Your task to perform on an android device: turn off improve location accuracy Image 0: 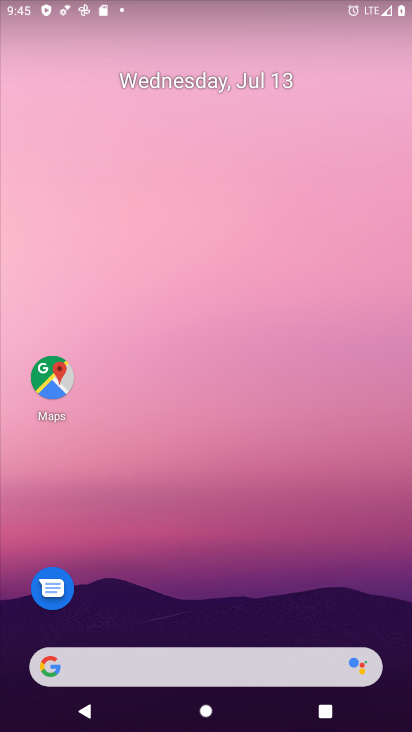
Step 0: drag from (263, 717) to (238, 92)
Your task to perform on an android device: turn off improve location accuracy Image 1: 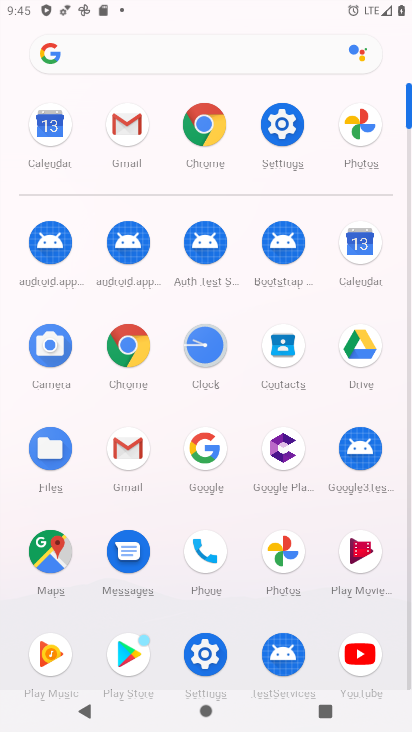
Step 1: click (294, 137)
Your task to perform on an android device: turn off improve location accuracy Image 2: 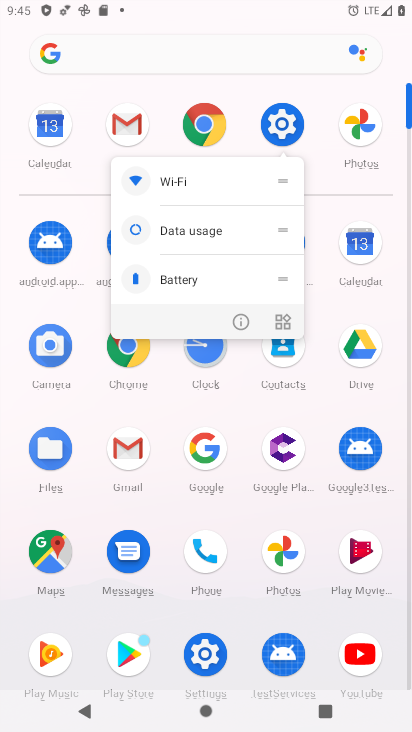
Step 2: click (288, 133)
Your task to perform on an android device: turn off improve location accuracy Image 3: 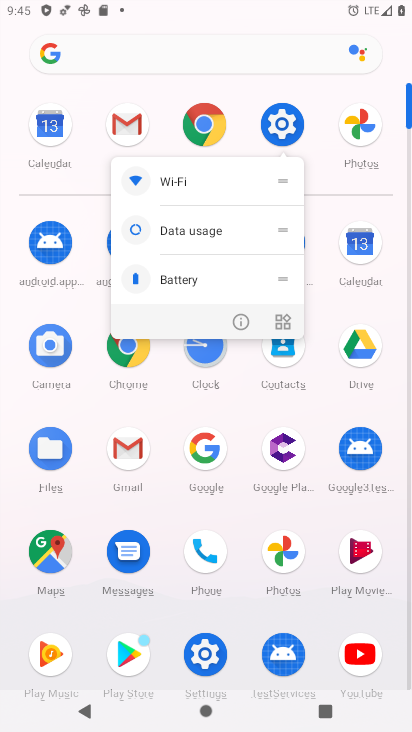
Step 3: click (288, 133)
Your task to perform on an android device: turn off improve location accuracy Image 4: 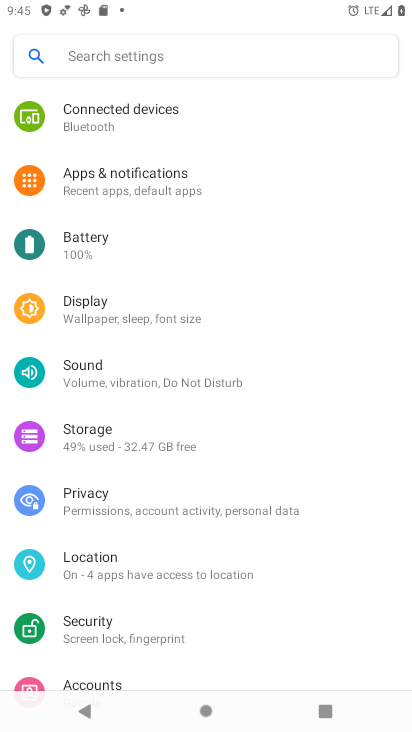
Step 4: click (156, 569)
Your task to perform on an android device: turn off improve location accuracy Image 5: 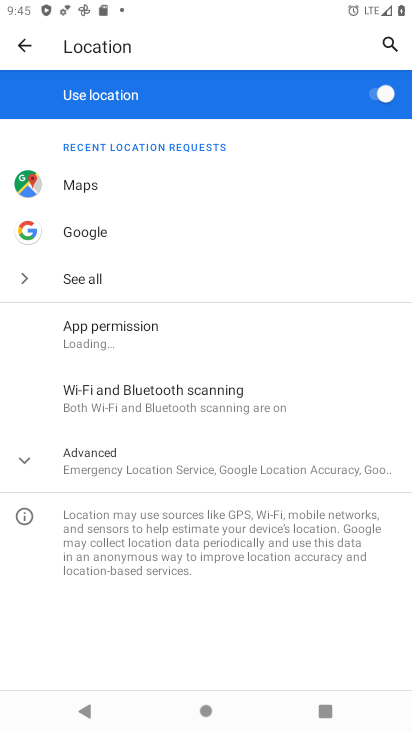
Step 5: click (157, 472)
Your task to perform on an android device: turn off improve location accuracy Image 6: 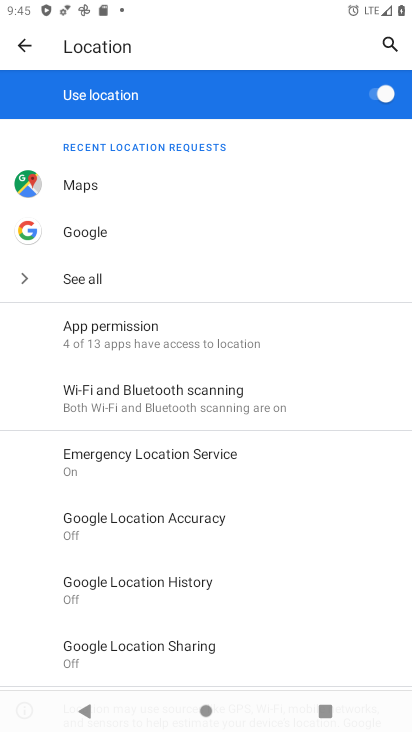
Step 6: click (204, 519)
Your task to perform on an android device: turn off improve location accuracy Image 7: 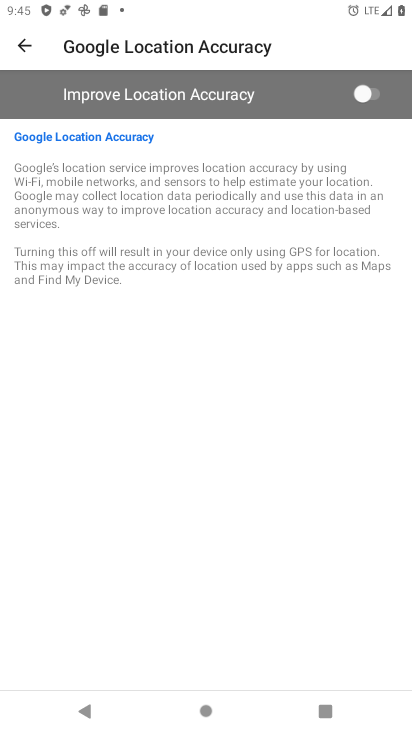
Step 7: task complete